Your task to perform on an android device: Open Maps and search for coffee Image 0: 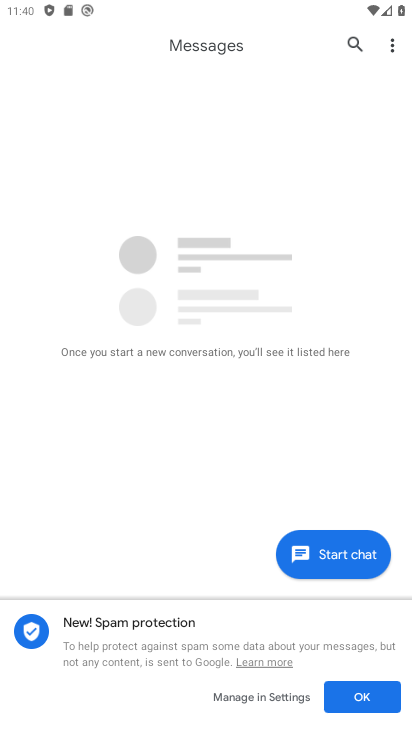
Step 0: press home button
Your task to perform on an android device: Open Maps and search for coffee Image 1: 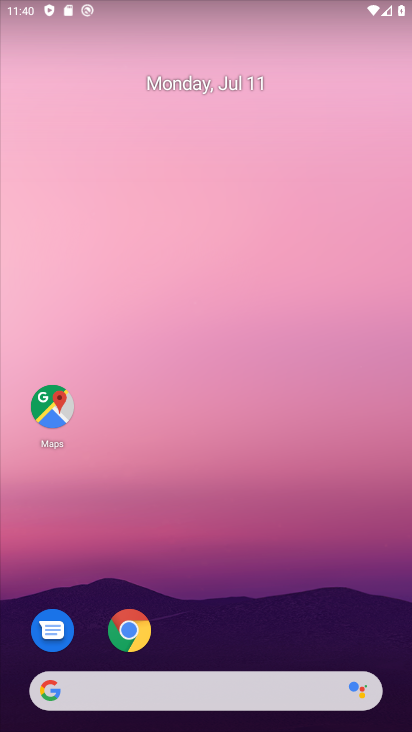
Step 1: drag from (196, 643) to (237, 80)
Your task to perform on an android device: Open Maps and search for coffee Image 2: 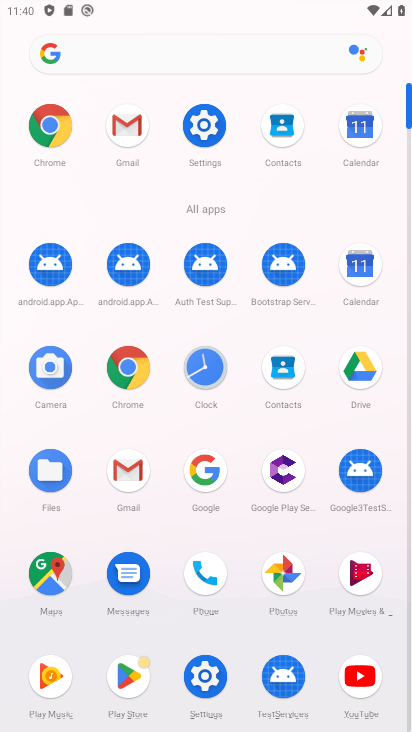
Step 2: click (48, 575)
Your task to perform on an android device: Open Maps and search for coffee Image 3: 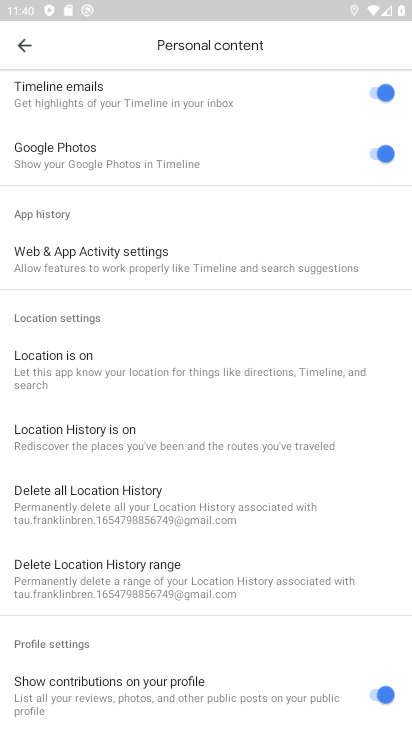
Step 3: task complete